Your task to perform on an android device: delete a single message in the gmail app Image 0: 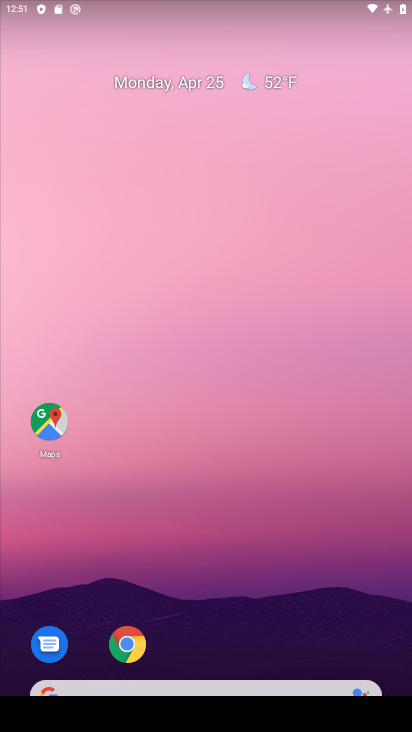
Step 0: task complete